Your task to perform on an android device: Go to ESPN.com Image 0: 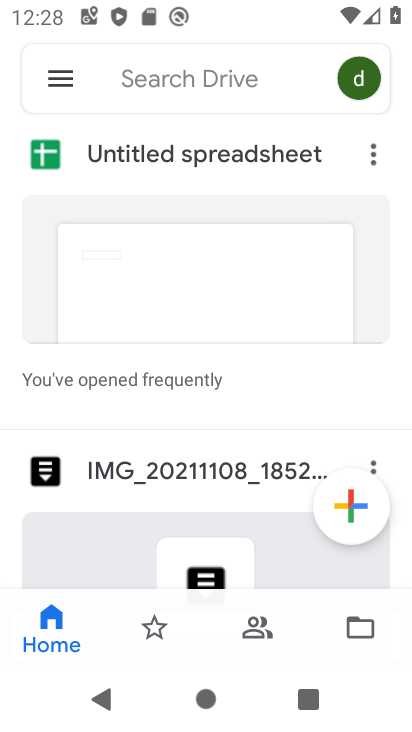
Step 0: press home button
Your task to perform on an android device: Go to ESPN.com Image 1: 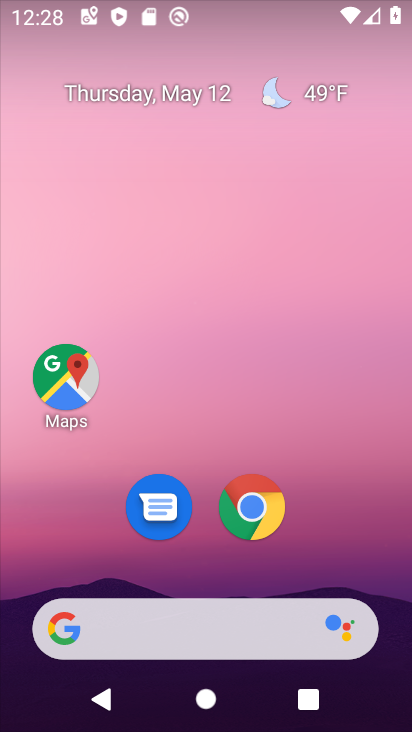
Step 1: click (246, 509)
Your task to perform on an android device: Go to ESPN.com Image 2: 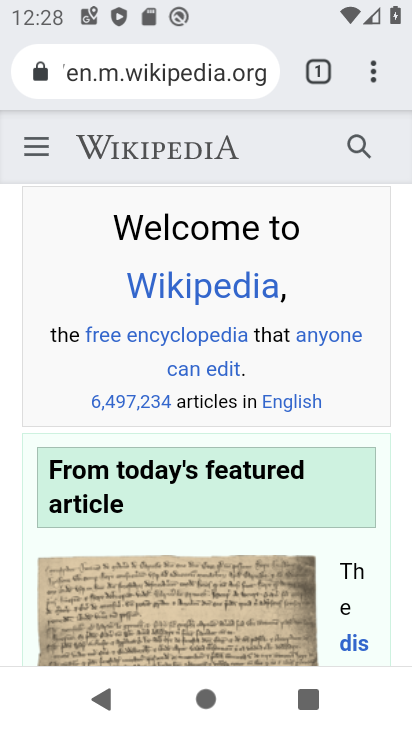
Step 2: click (135, 79)
Your task to perform on an android device: Go to ESPN.com Image 3: 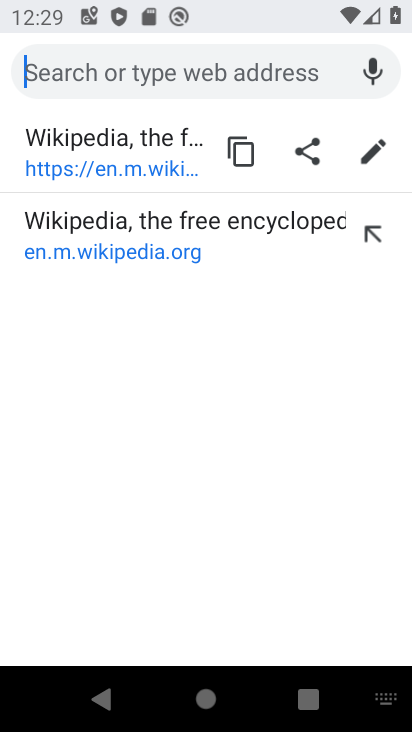
Step 3: type "ESPN.com"
Your task to perform on an android device: Go to ESPN.com Image 4: 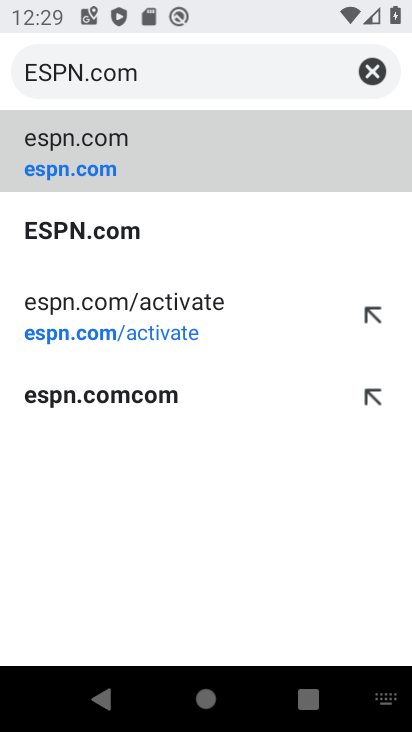
Step 4: click (76, 168)
Your task to perform on an android device: Go to ESPN.com Image 5: 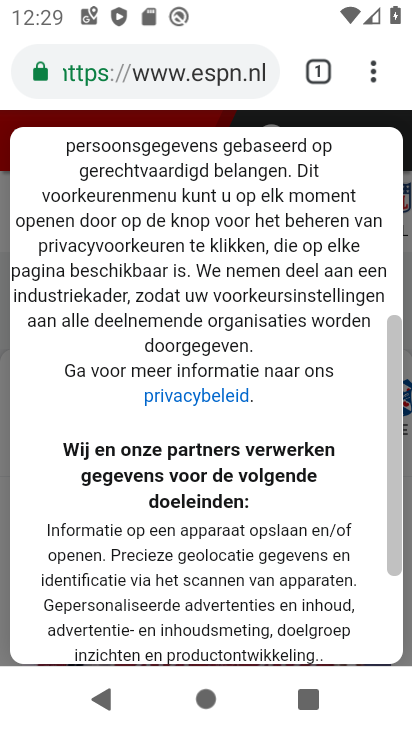
Step 5: task complete